Your task to perform on an android device: When is my next appointment? Image 0: 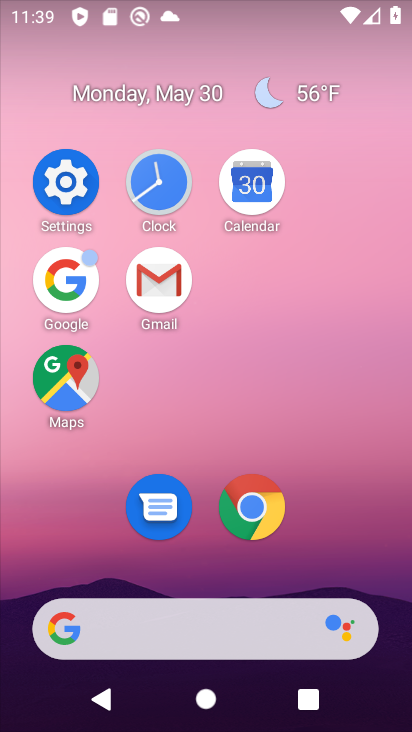
Step 0: click (259, 205)
Your task to perform on an android device: When is my next appointment? Image 1: 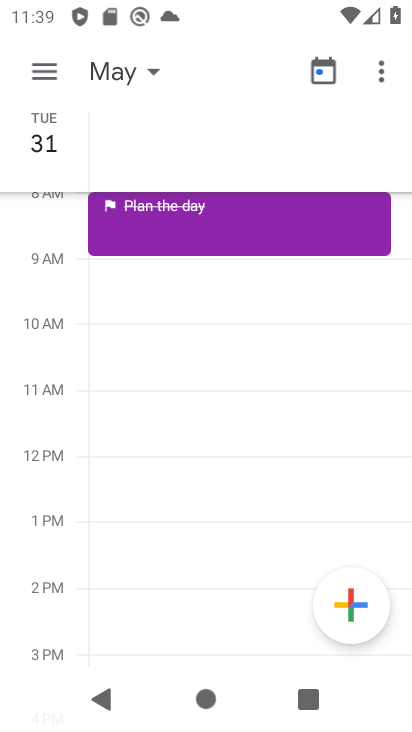
Step 1: task complete